Your task to perform on an android device: Go to eBay Image 0: 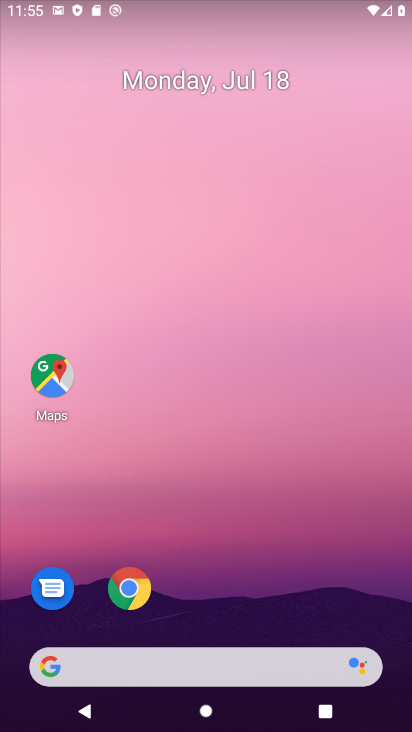
Step 0: drag from (390, 631) to (239, 69)
Your task to perform on an android device: Go to eBay Image 1: 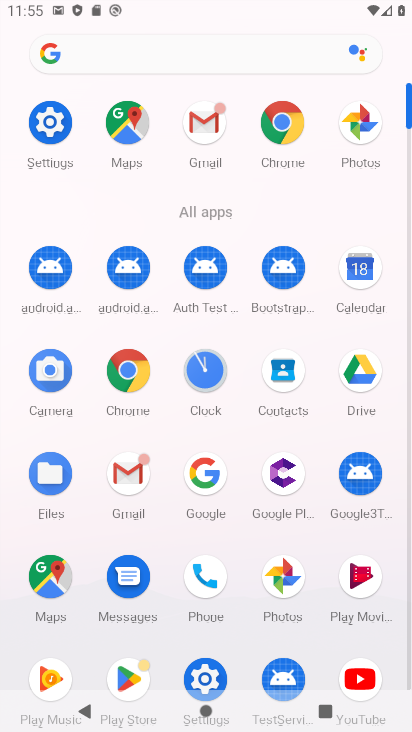
Step 1: click (206, 480)
Your task to perform on an android device: Go to eBay Image 2: 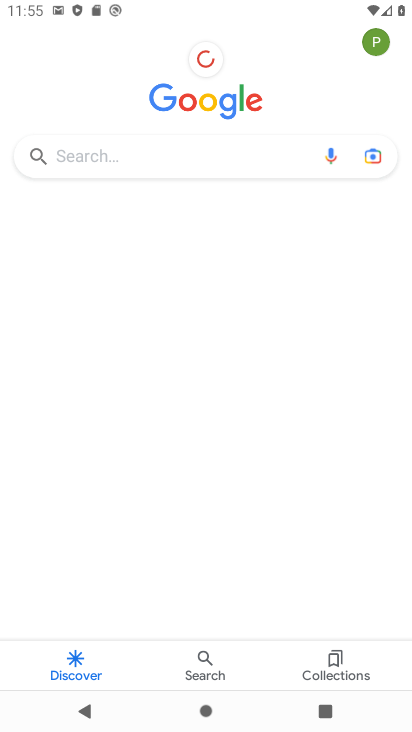
Step 2: click (159, 163)
Your task to perform on an android device: Go to eBay Image 3: 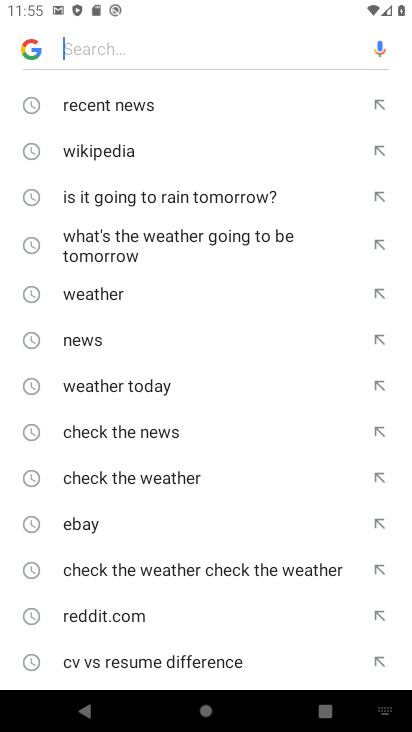
Step 3: click (100, 518)
Your task to perform on an android device: Go to eBay Image 4: 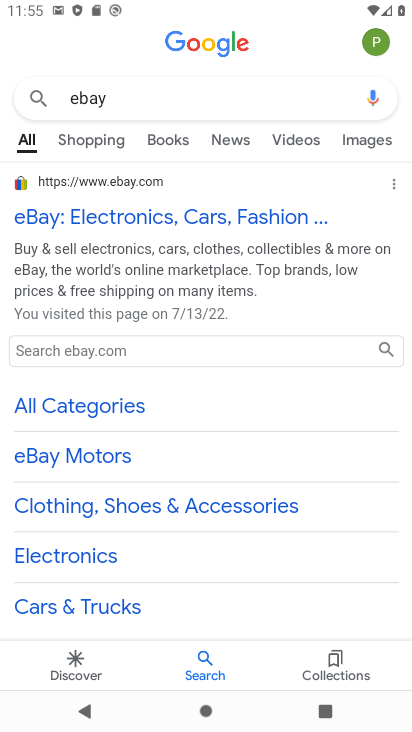
Step 4: task complete